Your task to perform on an android device: check out phone information Image 0: 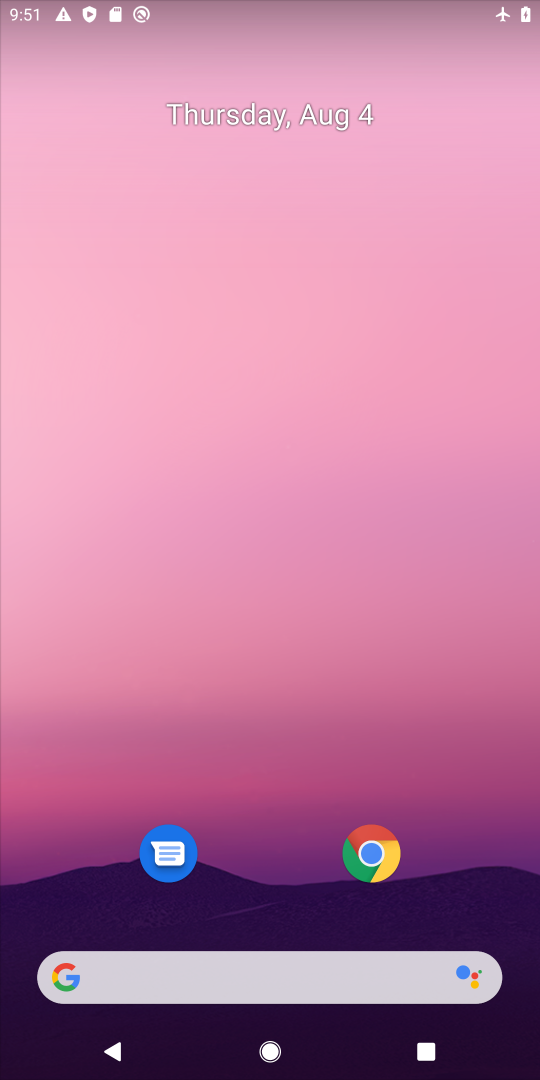
Step 0: drag from (284, 694) to (328, 141)
Your task to perform on an android device: check out phone information Image 1: 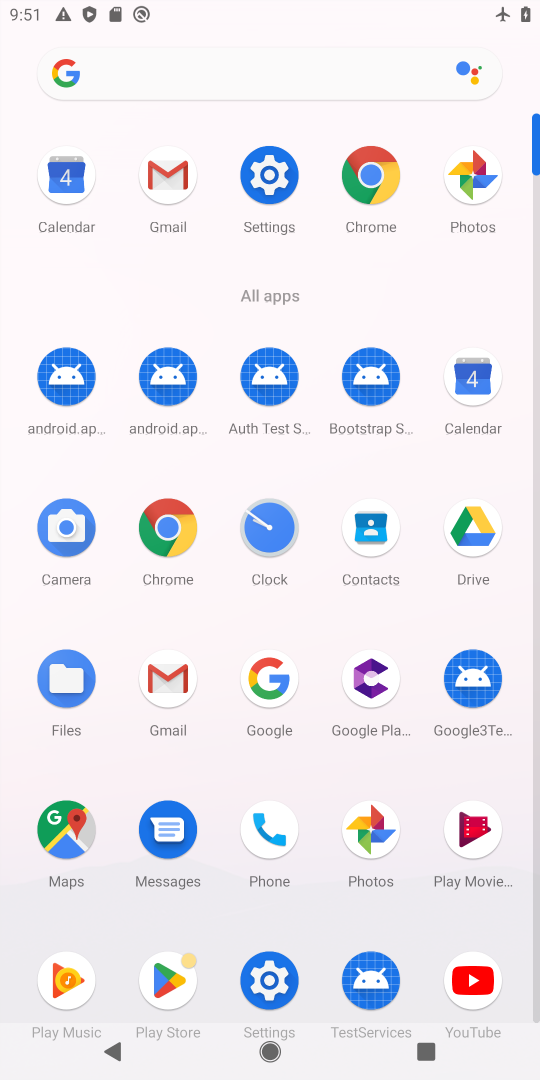
Step 1: click (259, 183)
Your task to perform on an android device: check out phone information Image 2: 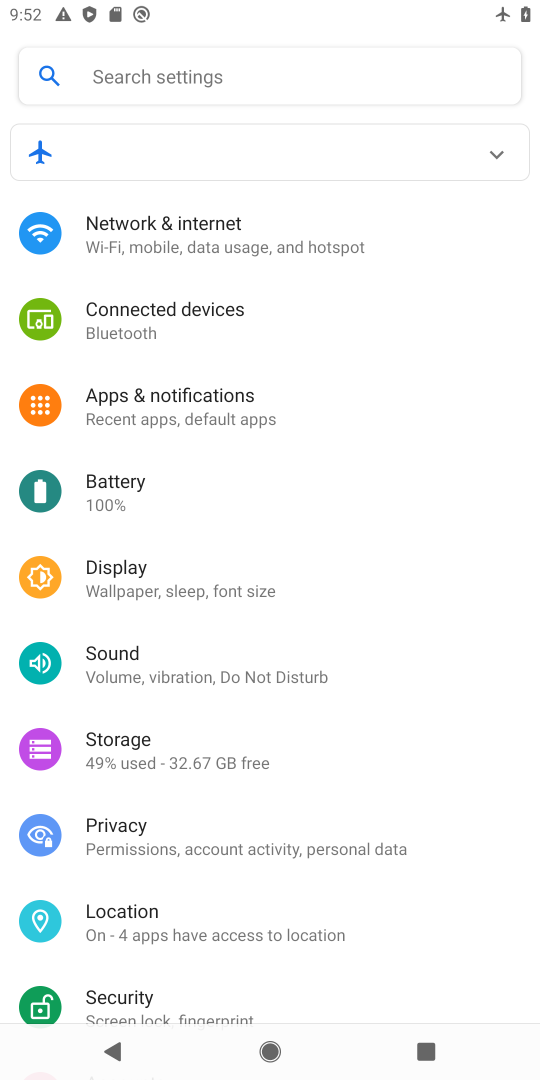
Step 2: drag from (164, 758) to (239, 195)
Your task to perform on an android device: check out phone information Image 3: 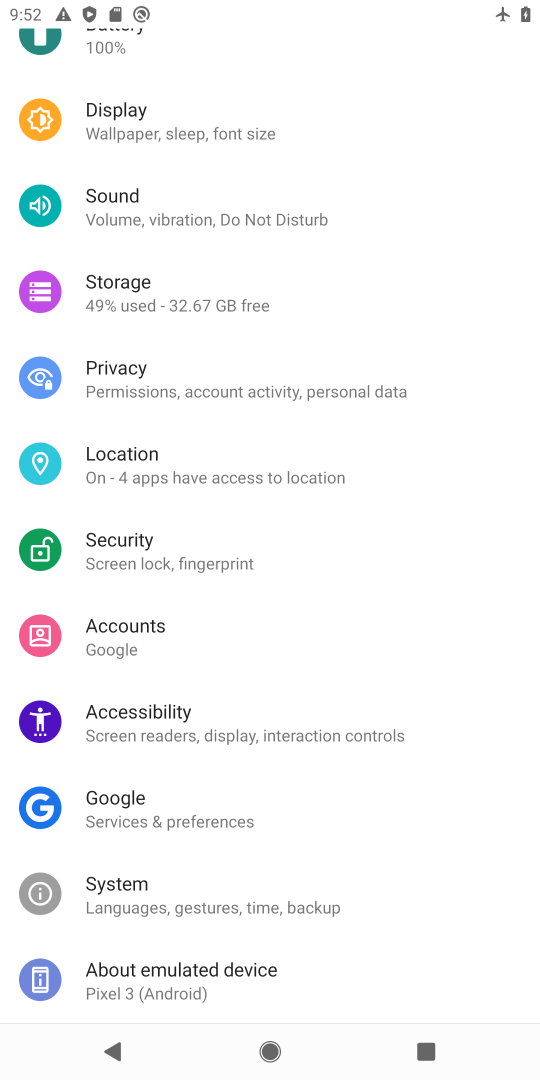
Step 3: drag from (237, 808) to (338, 98)
Your task to perform on an android device: check out phone information Image 4: 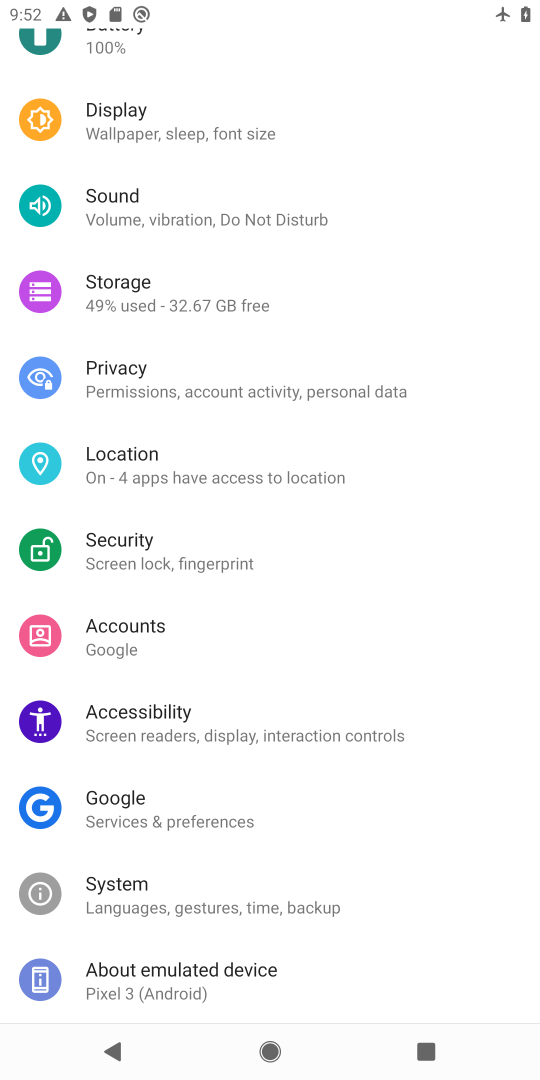
Step 4: click (213, 975)
Your task to perform on an android device: check out phone information Image 5: 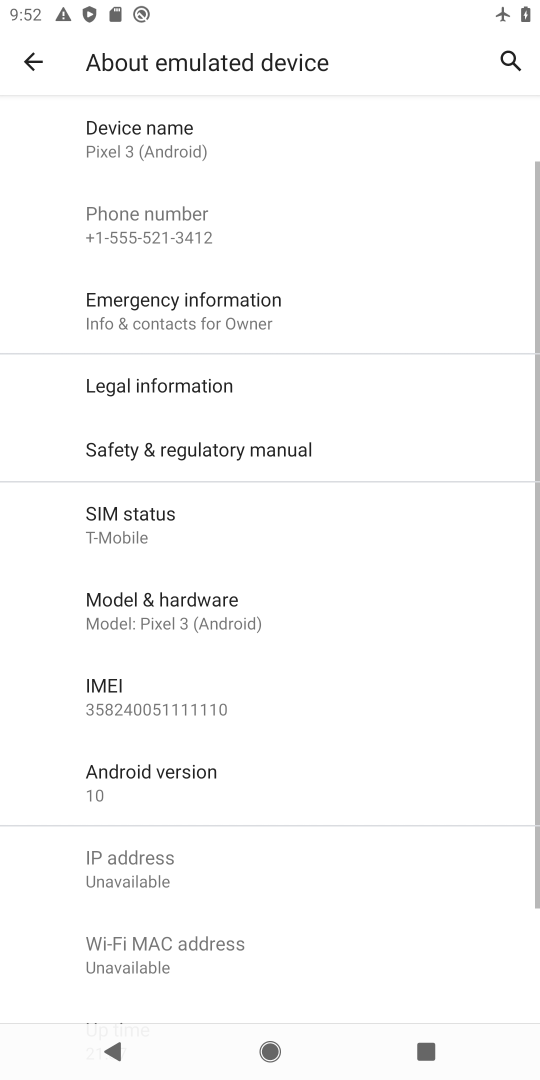
Step 5: task complete